Your task to perform on an android device: Set the phone to "Do not disturb". Image 0: 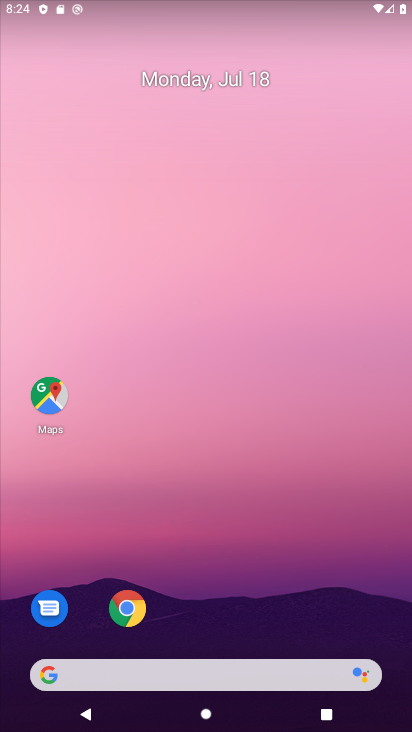
Step 0: drag from (254, 573) to (254, 122)
Your task to perform on an android device: Set the phone to "Do not disturb". Image 1: 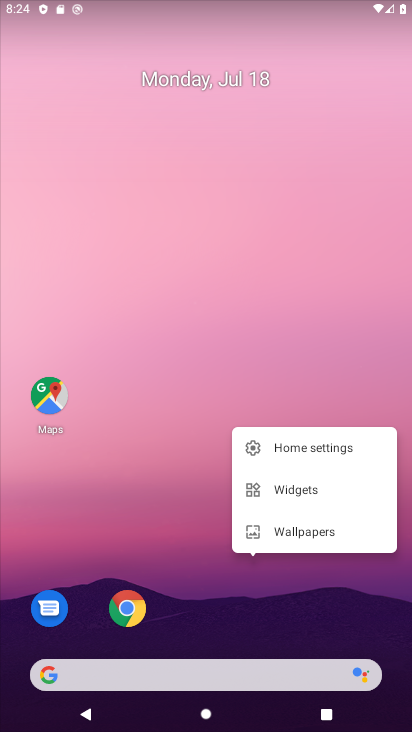
Step 1: click (254, 210)
Your task to perform on an android device: Set the phone to "Do not disturb". Image 2: 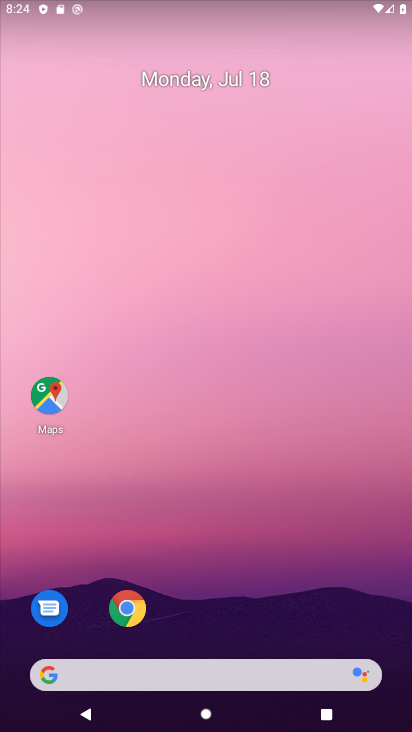
Step 2: drag from (244, 600) to (198, 22)
Your task to perform on an android device: Set the phone to "Do not disturb". Image 3: 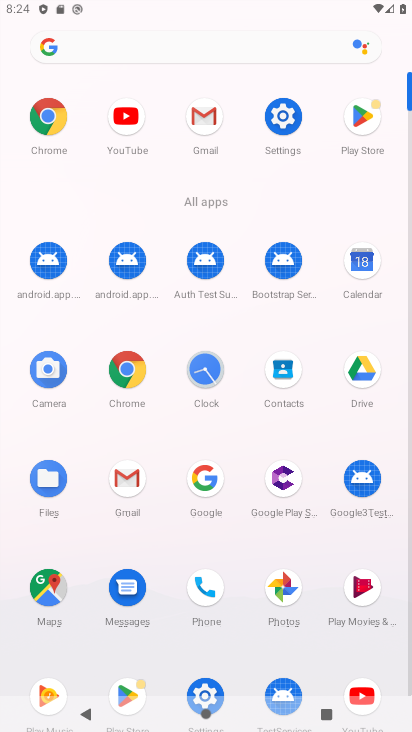
Step 3: click (286, 109)
Your task to perform on an android device: Set the phone to "Do not disturb". Image 4: 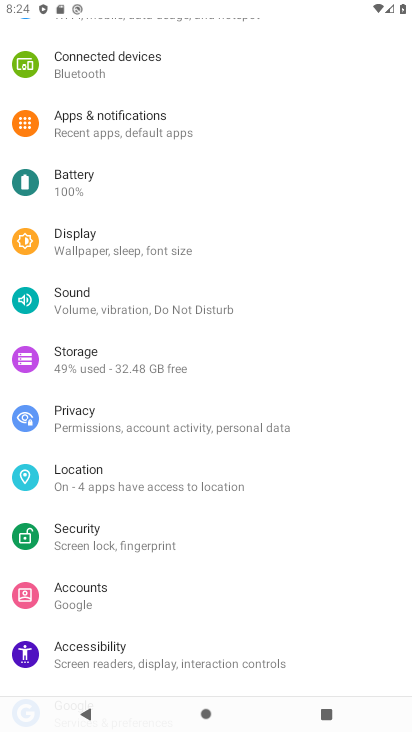
Step 4: click (165, 314)
Your task to perform on an android device: Set the phone to "Do not disturb". Image 5: 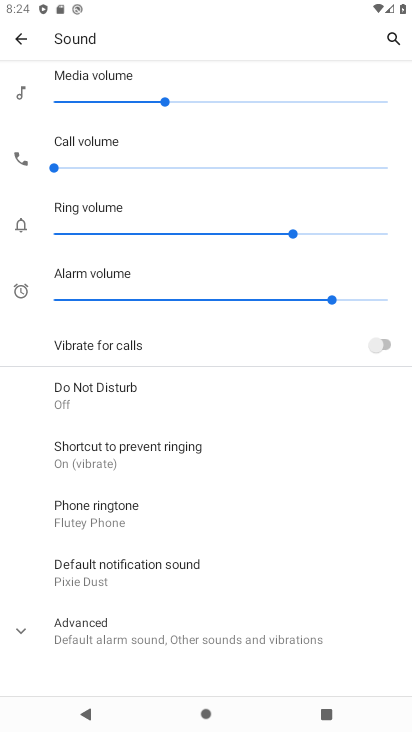
Step 5: click (129, 383)
Your task to perform on an android device: Set the phone to "Do not disturb". Image 6: 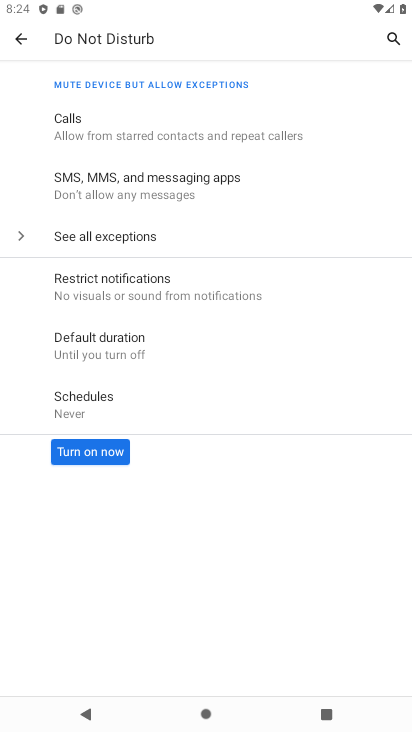
Step 6: click (101, 452)
Your task to perform on an android device: Set the phone to "Do not disturb". Image 7: 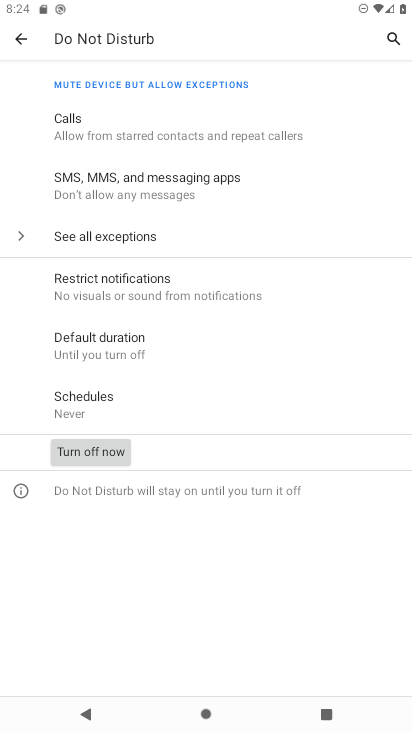
Step 7: task complete